Your task to perform on an android device: Show the shopping cart on amazon. Add razer blade to the cart on amazon, then select checkout. Image 0: 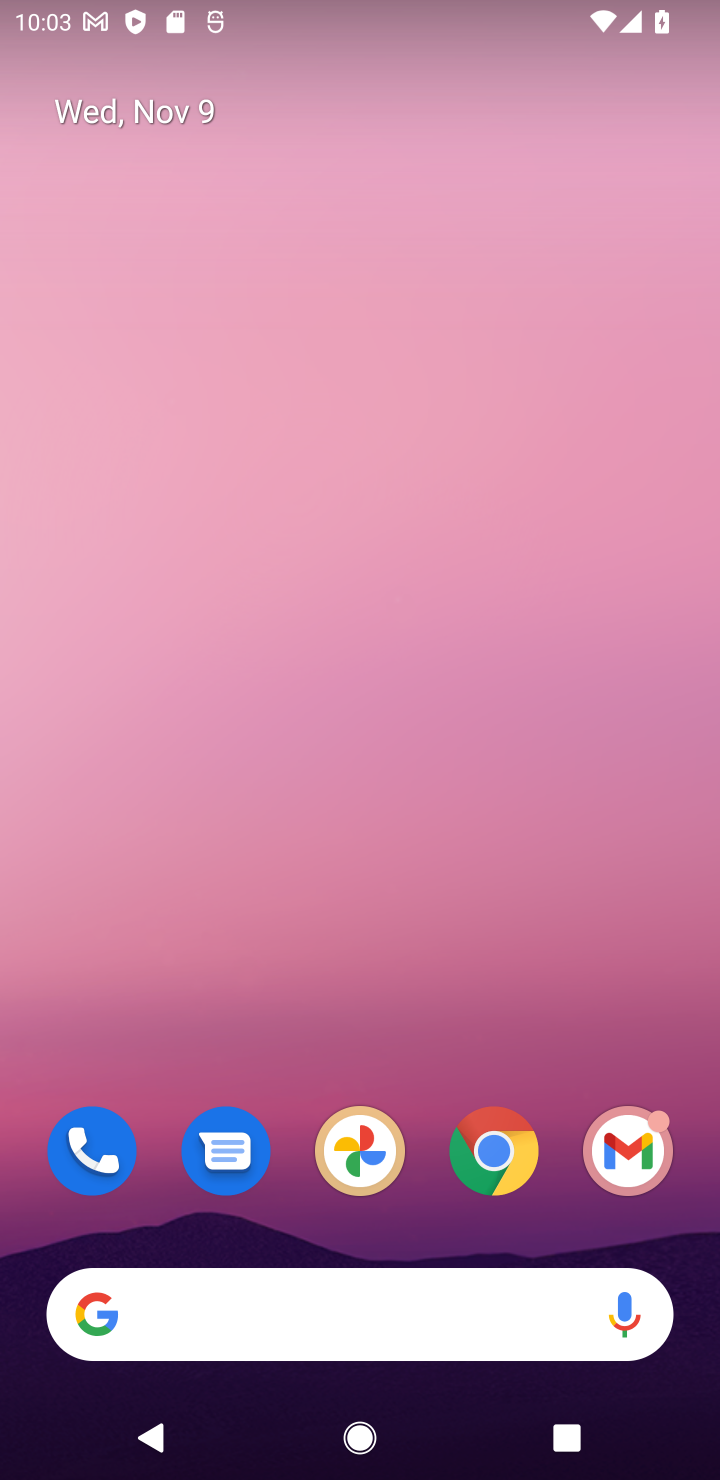
Step 0: click (490, 1151)
Your task to perform on an android device: Show the shopping cart on amazon. Add razer blade to the cart on amazon, then select checkout. Image 1: 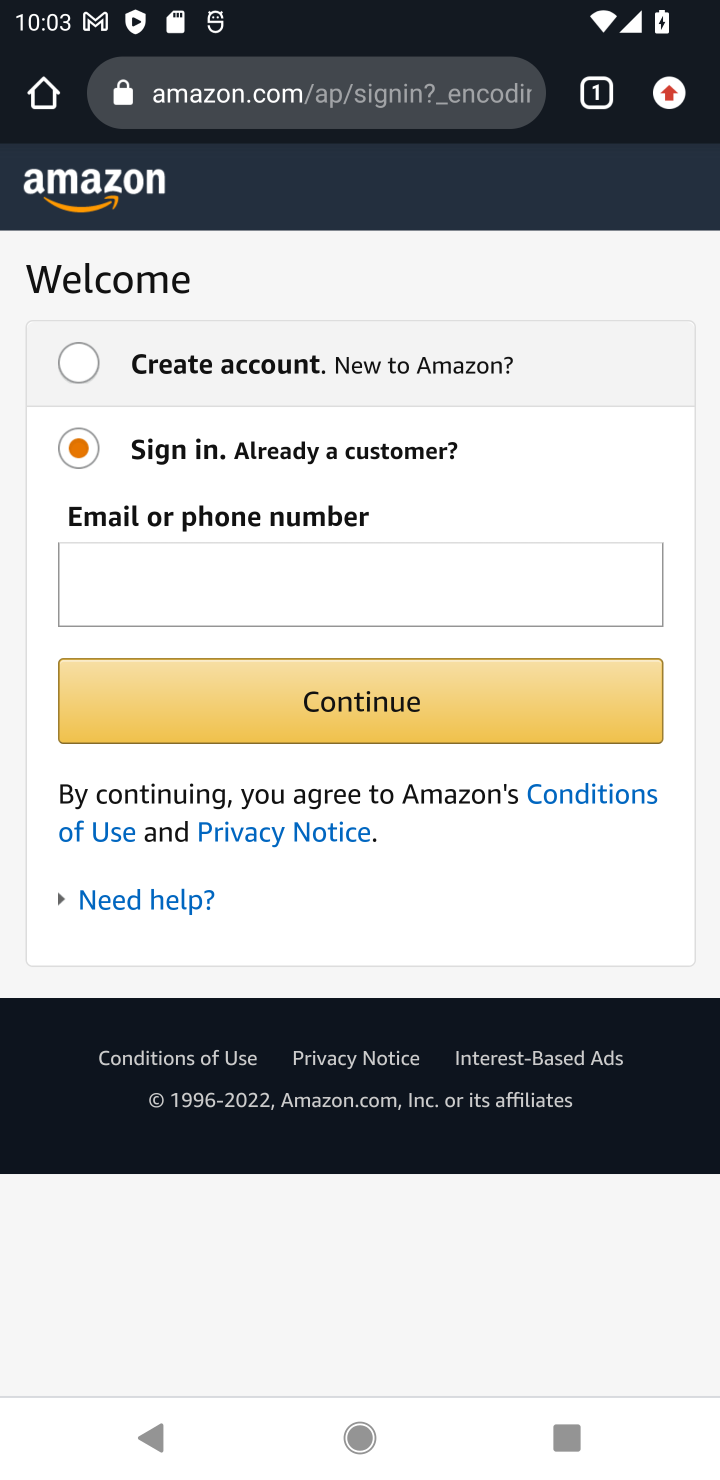
Step 1: press back button
Your task to perform on an android device: Show the shopping cart on amazon. Add razer blade to the cart on amazon, then select checkout. Image 2: 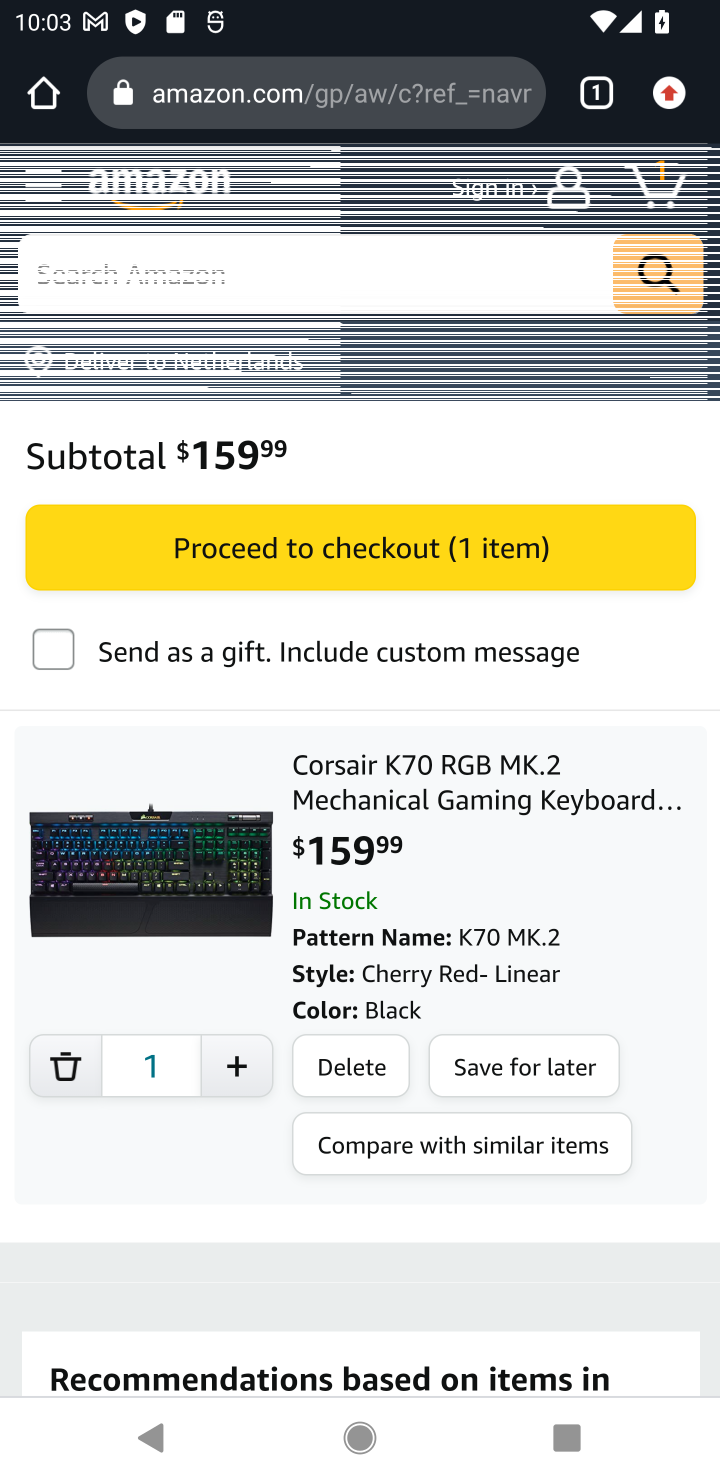
Step 2: click (650, 181)
Your task to perform on an android device: Show the shopping cart on amazon. Add razer blade to the cart on amazon, then select checkout. Image 3: 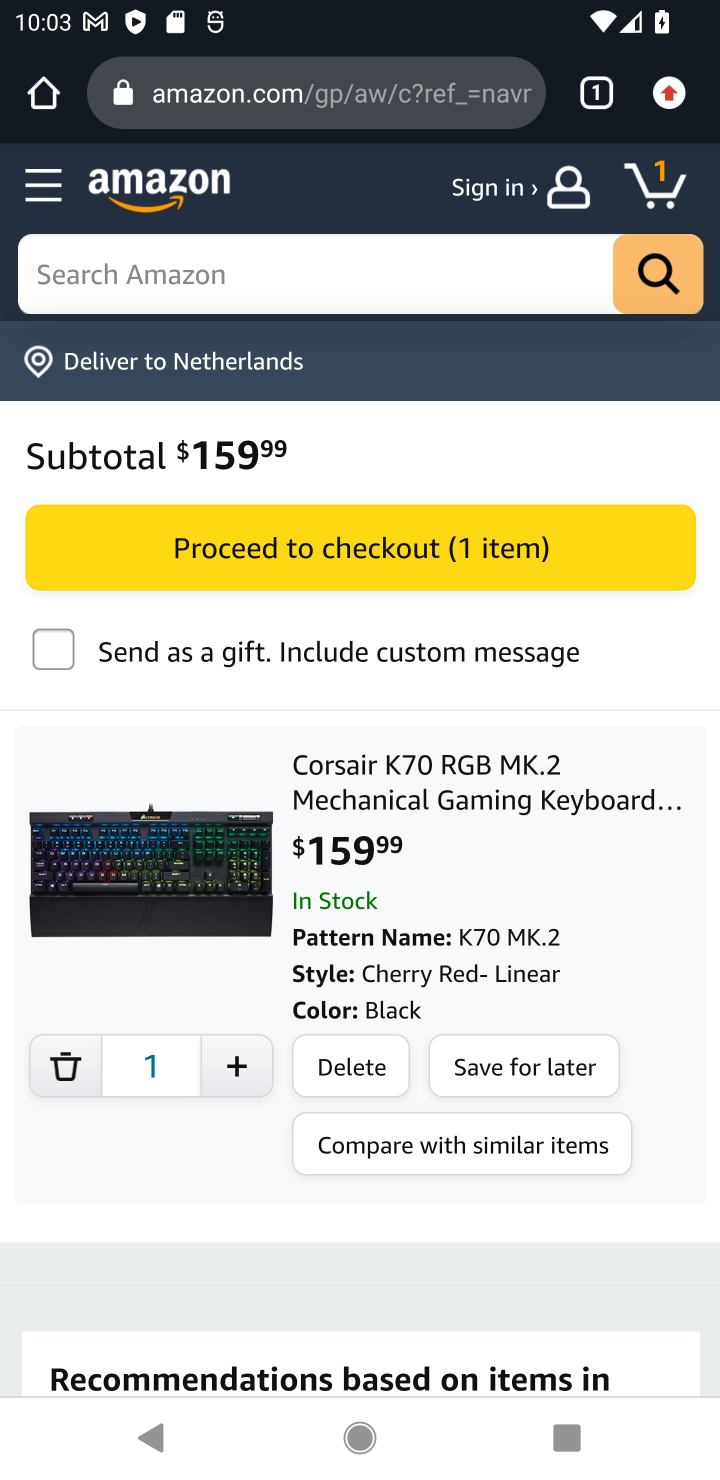
Step 3: click (402, 274)
Your task to perform on an android device: Show the shopping cart on amazon. Add razer blade to the cart on amazon, then select checkout. Image 4: 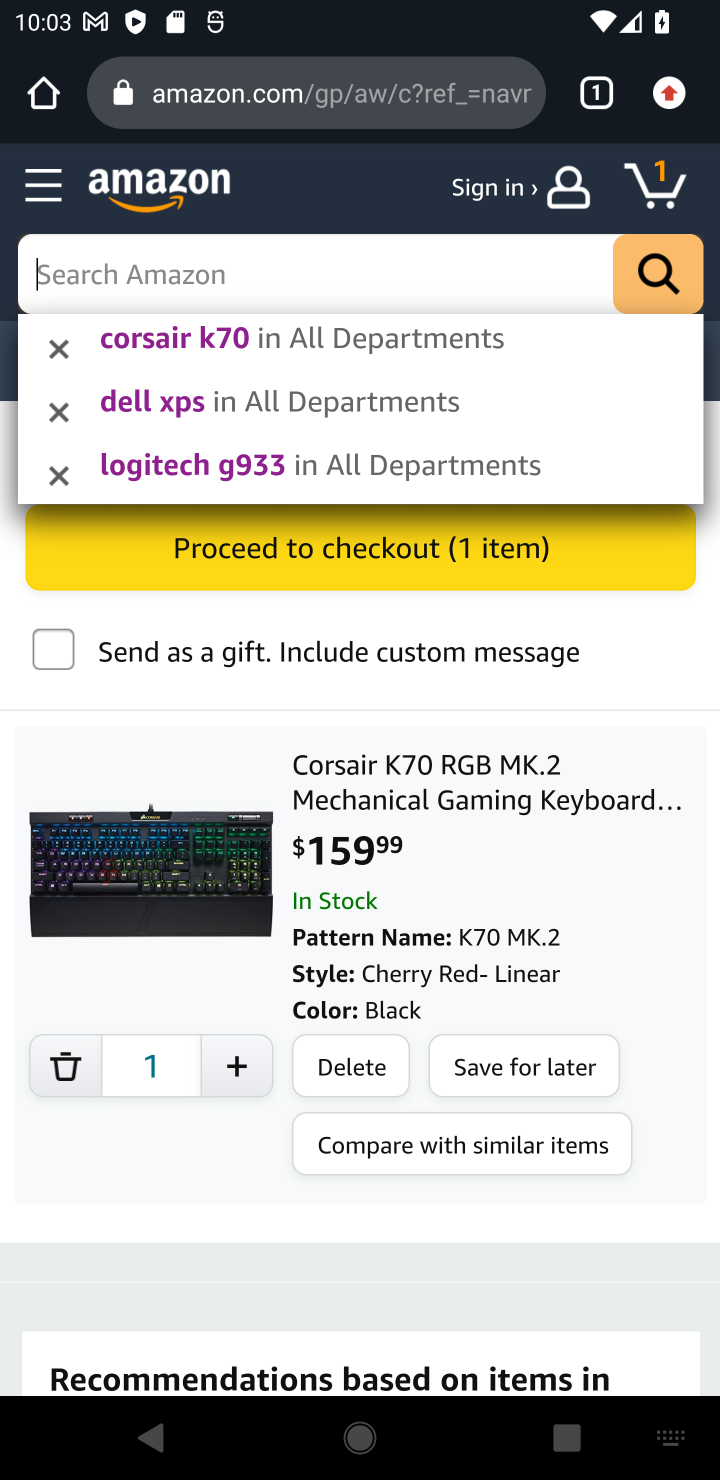
Step 4: type "razer blade"
Your task to perform on an android device: Show the shopping cart on amazon. Add razer blade to the cart on amazon, then select checkout. Image 5: 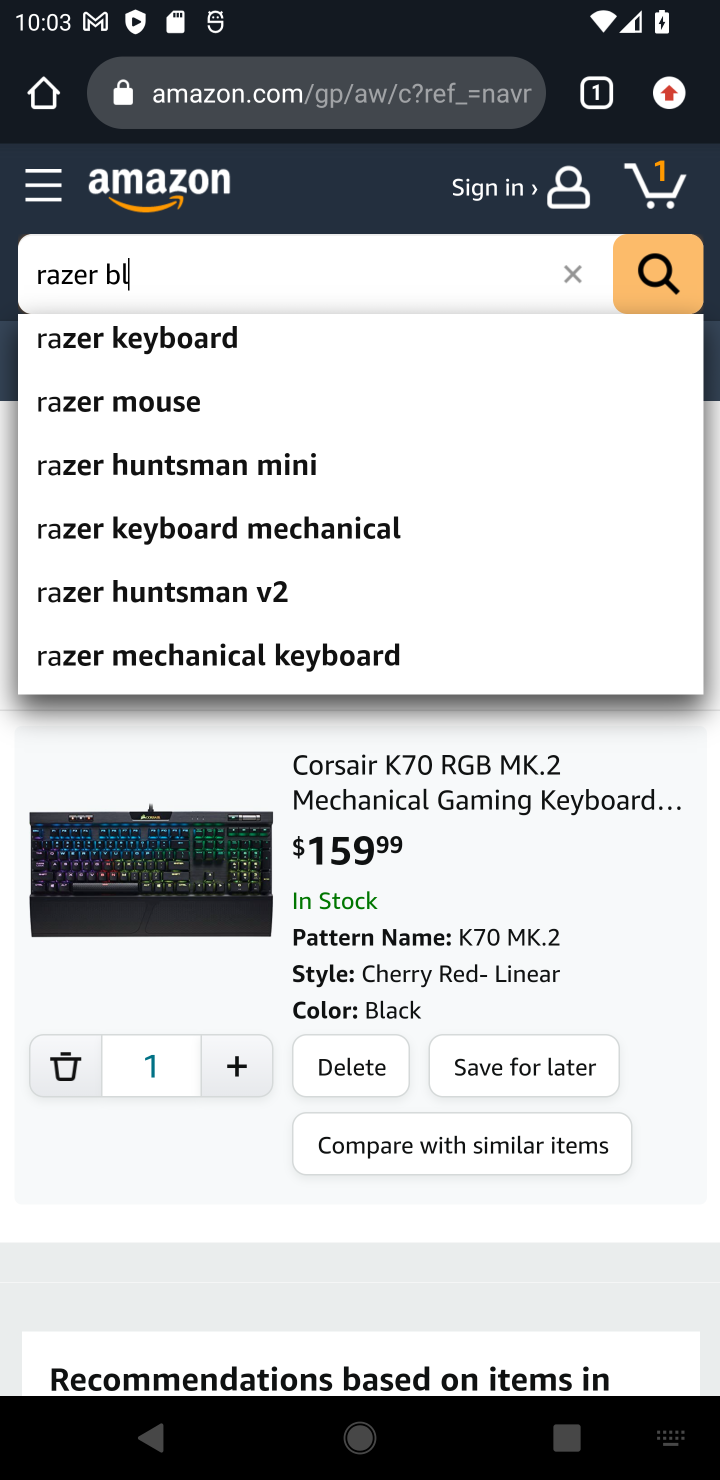
Step 5: press enter
Your task to perform on an android device: Show the shopping cart on amazon. Add razer blade to the cart on amazon, then select checkout. Image 6: 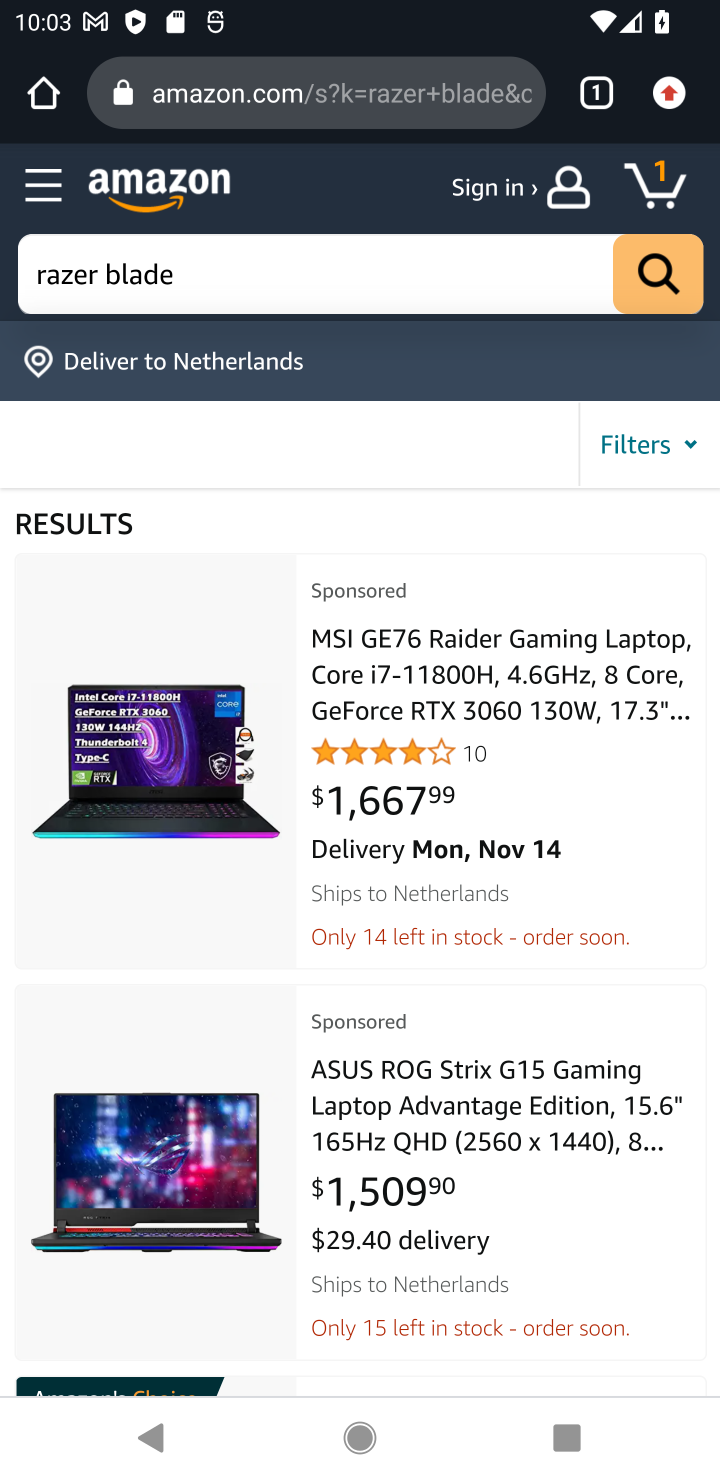
Step 6: drag from (561, 1230) to (535, 676)
Your task to perform on an android device: Show the shopping cart on amazon. Add razer blade to the cart on amazon, then select checkout. Image 7: 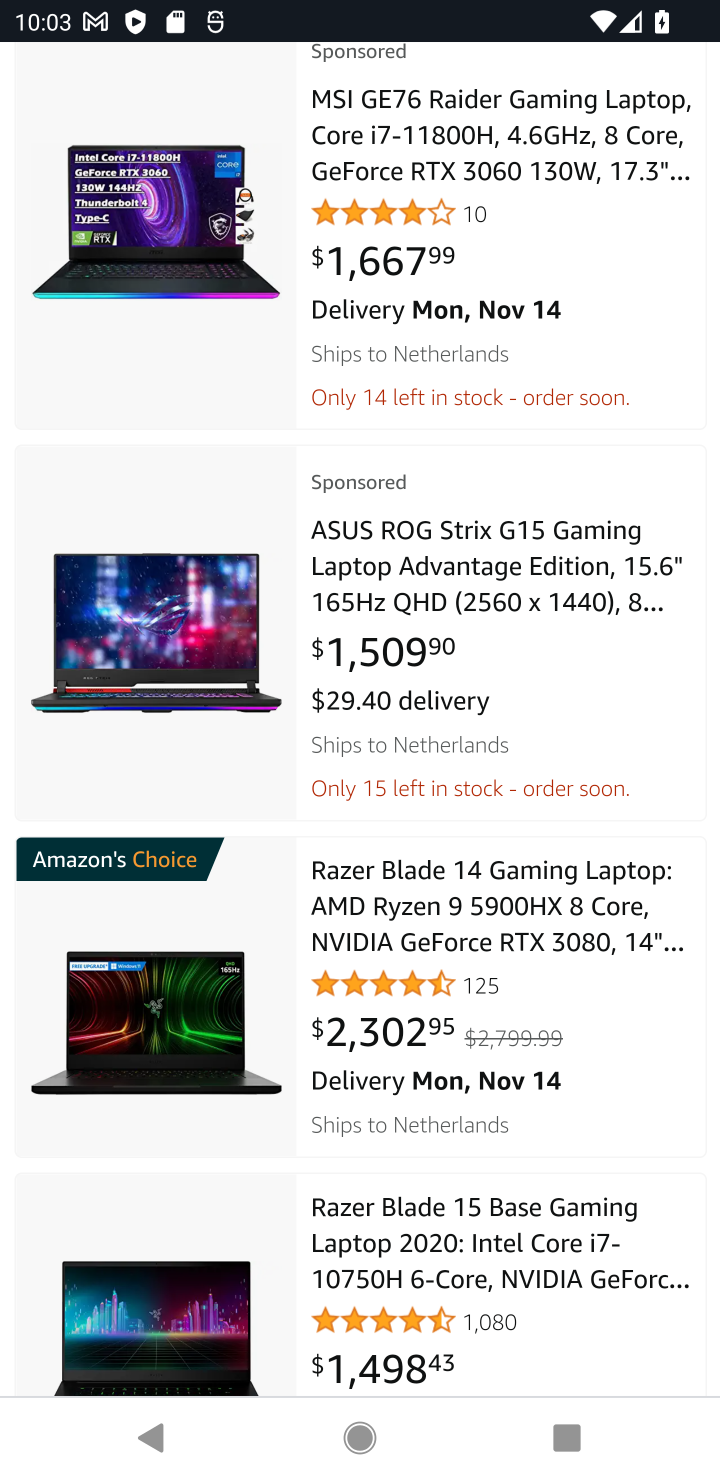
Step 7: click (158, 1044)
Your task to perform on an android device: Show the shopping cart on amazon. Add razer blade to the cart on amazon, then select checkout. Image 8: 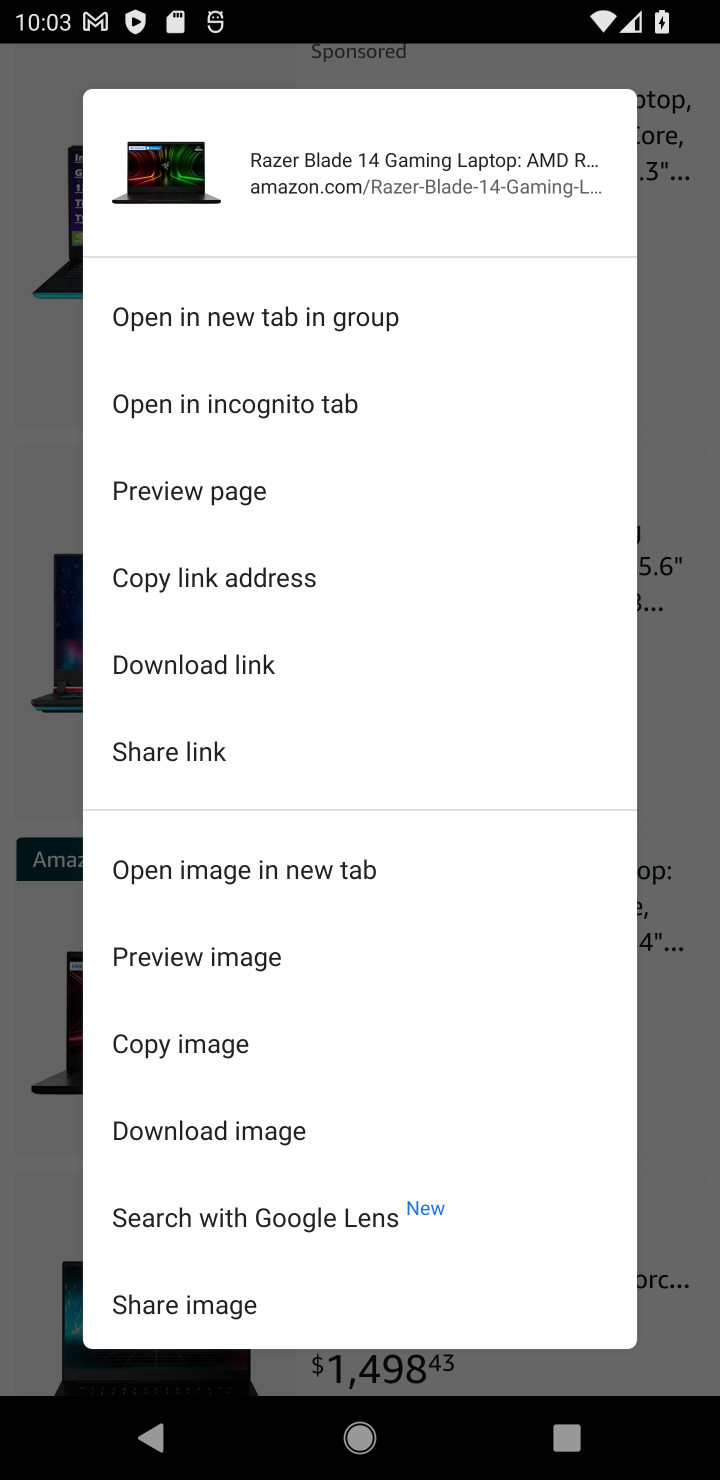
Step 8: click (51, 999)
Your task to perform on an android device: Show the shopping cart on amazon. Add razer blade to the cart on amazon, then select checkout. Image 9: 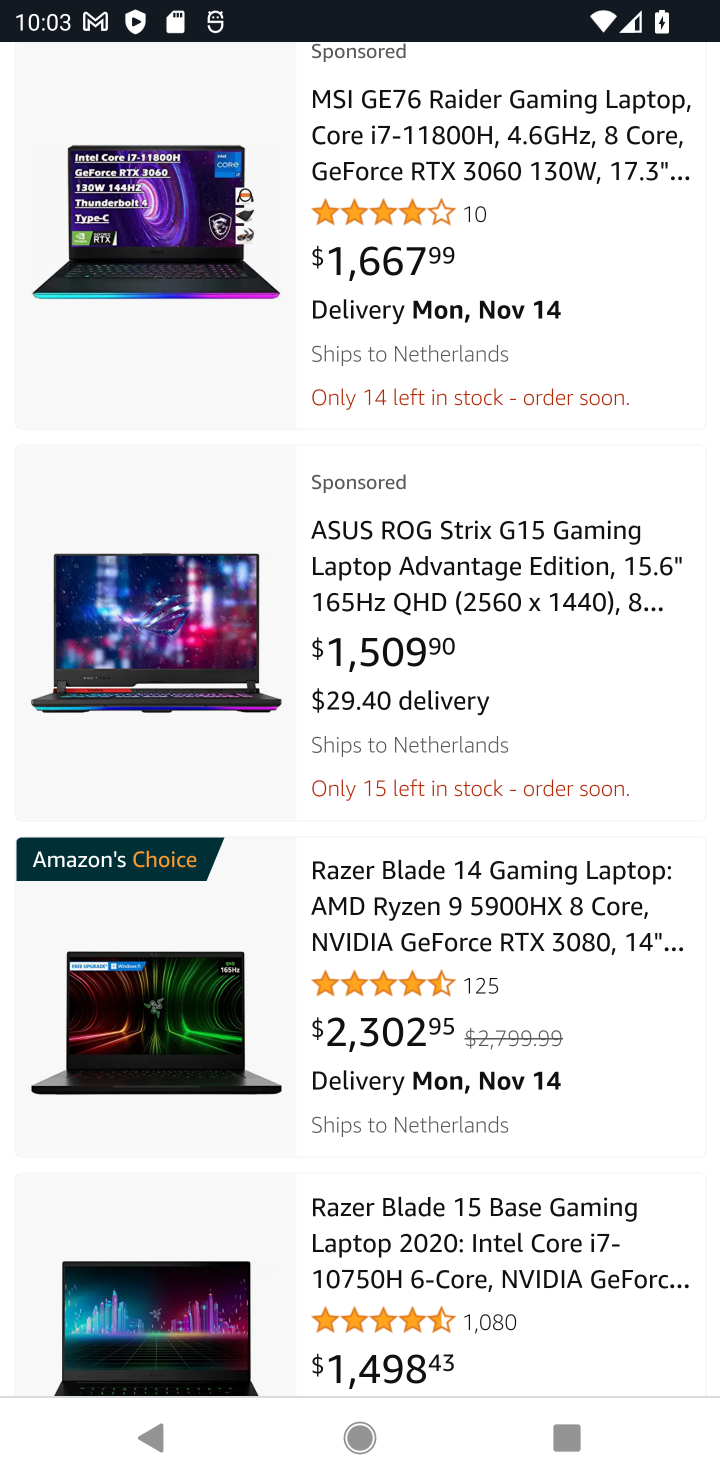
Step 9: click (155, 997)
Your task to perform on an android device: Show the shopping cart on amazon. Add razer blade to the cart on amazon, then select checkout. Image 10: 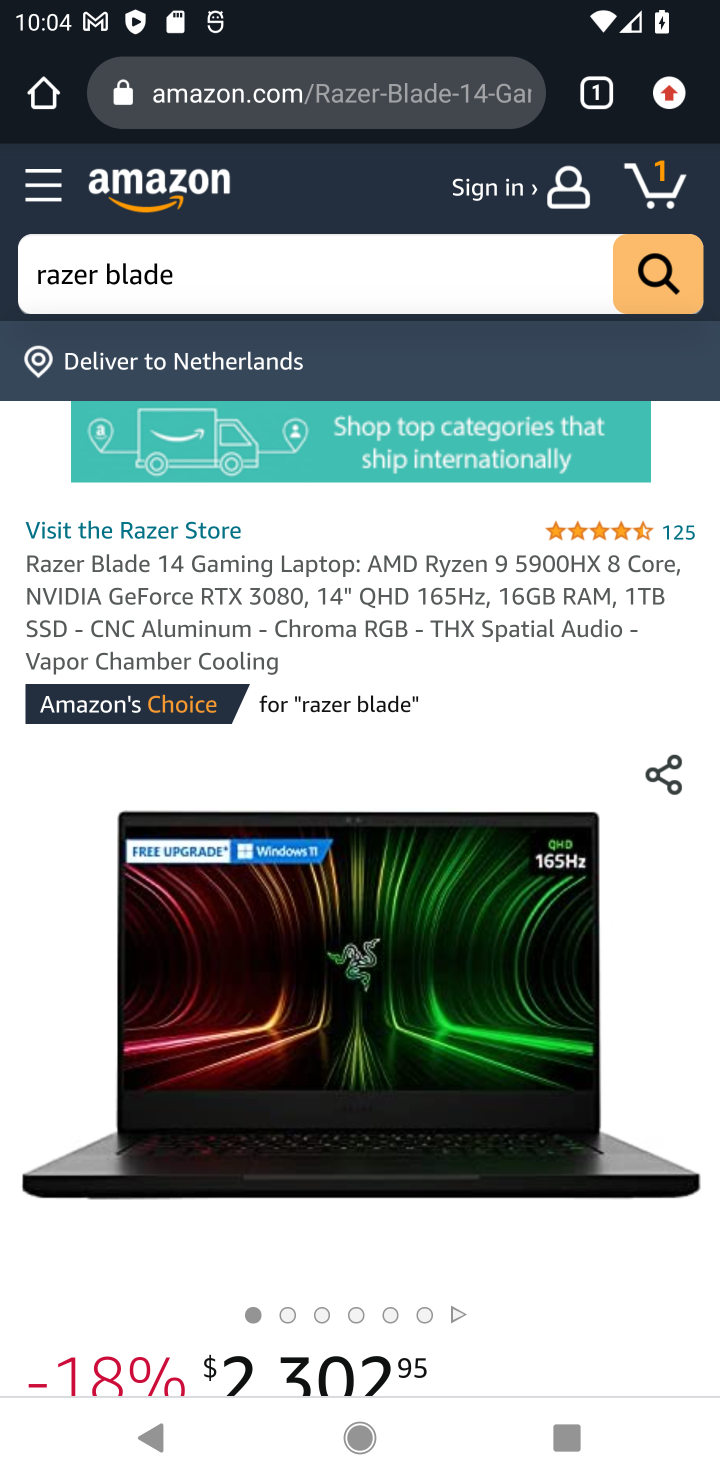
Step 10: drag from (293, 817) to (296, 654)
Your task to perform on an android device: Show the shopping cart on amazon. Add razer blade to the cart on amazon, then select checkout. Image 11: 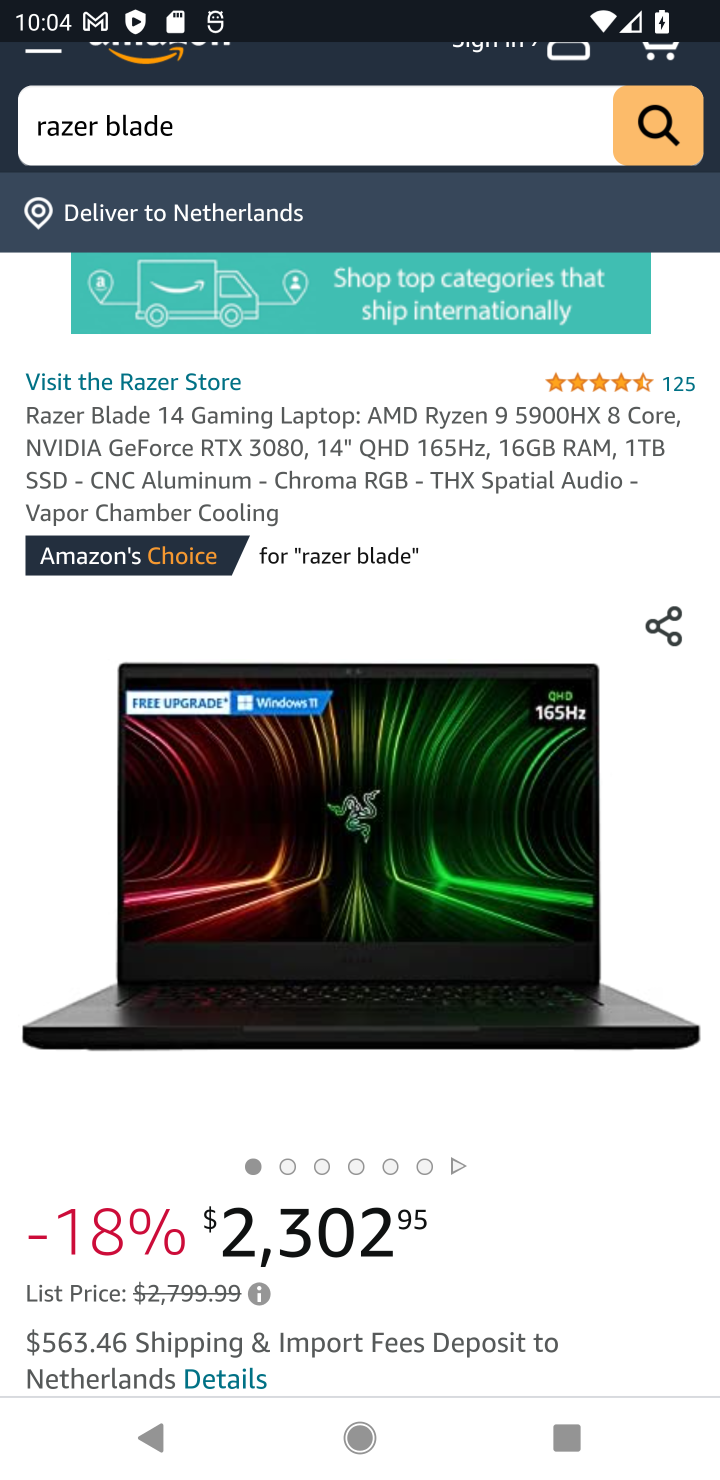
Step 11: drag from (492, 889) to (507, 708)
Your task to perform on an android device: Show the shopping cart on amazon. Add razer blade to the cart on amazon, then select checkout. Image 12: 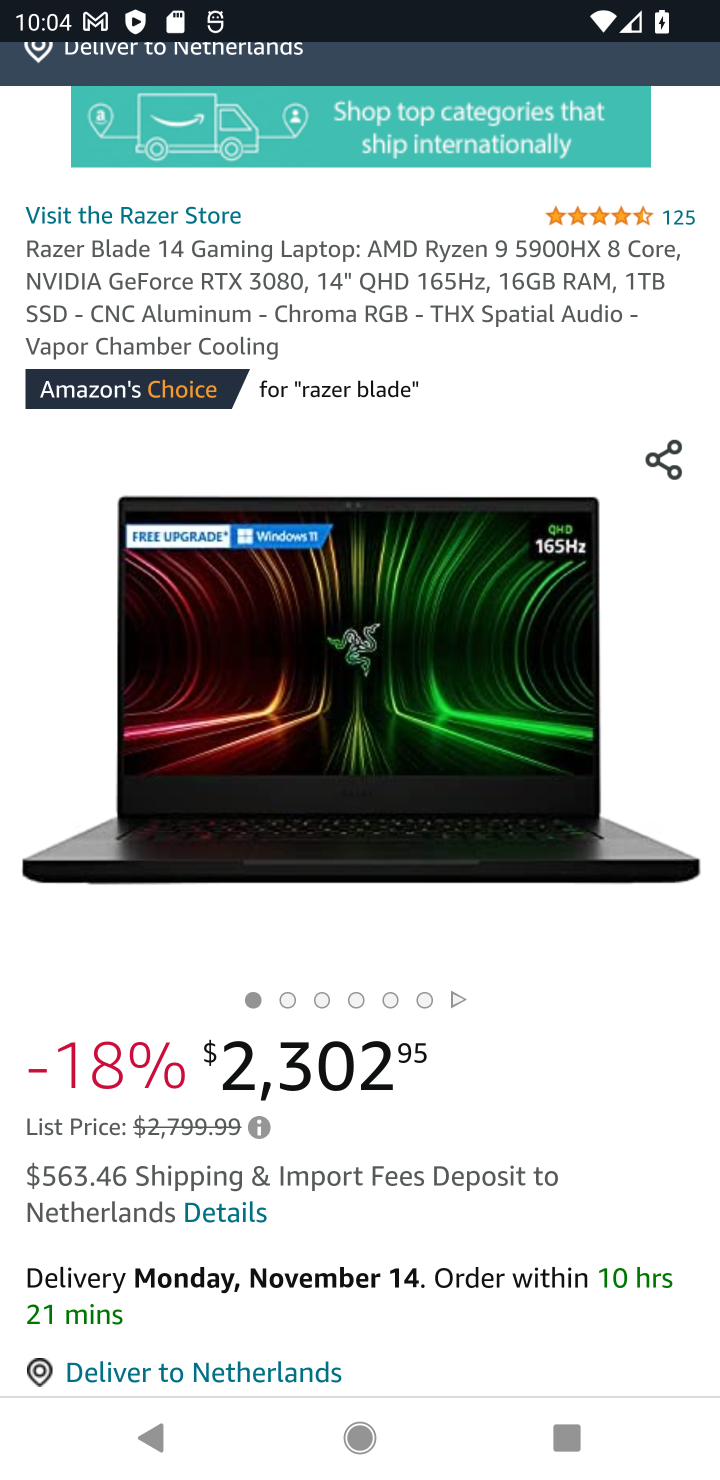
Step 12: drag from (594, 1263) to (619, 651)
Your task to perform on an android device: Show the shopping cart on amazon. Add razer blade to the cart on amazon, then select checkout. Image 13: 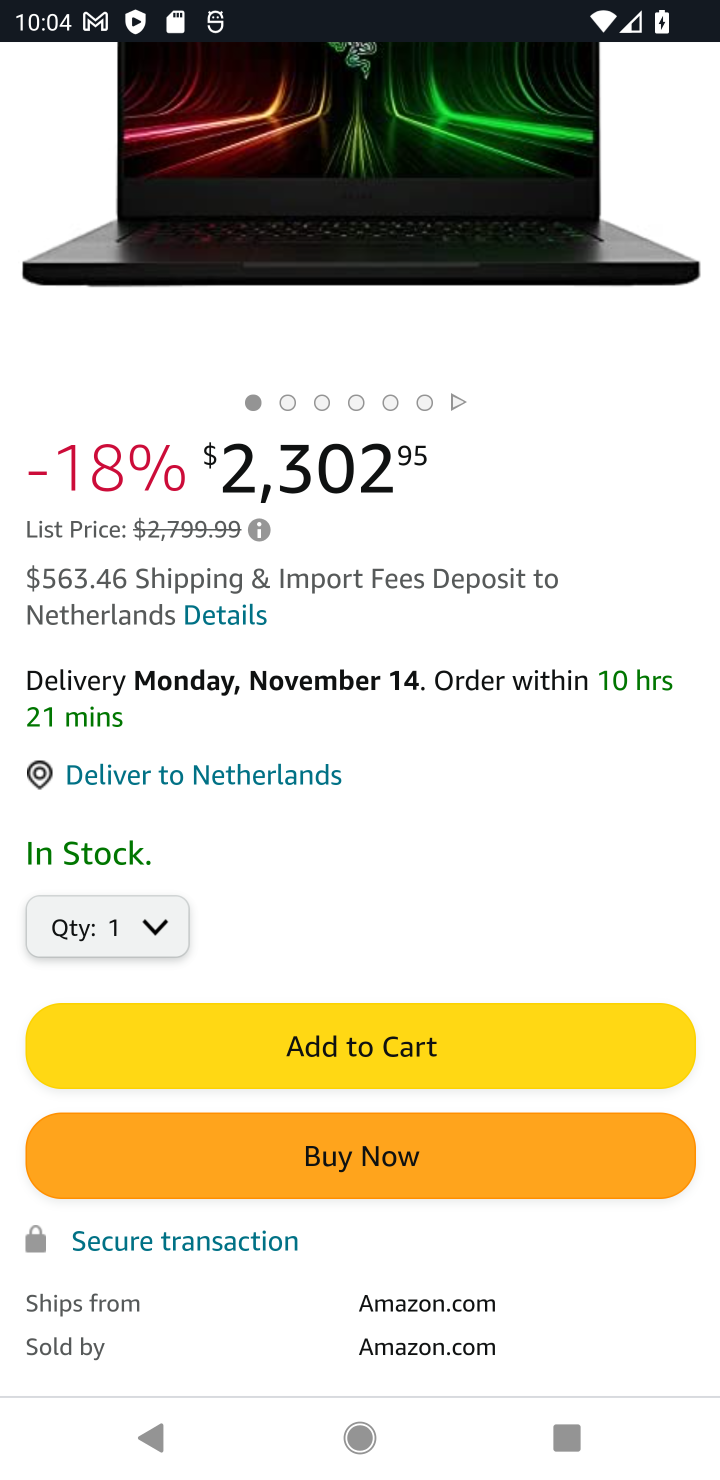
Step 13: click (414, 1044)
Your task to perform on an android device: Show the shopping cart on amazon. Add razer blade to the cart on amazon, then select checkout. Image 14: 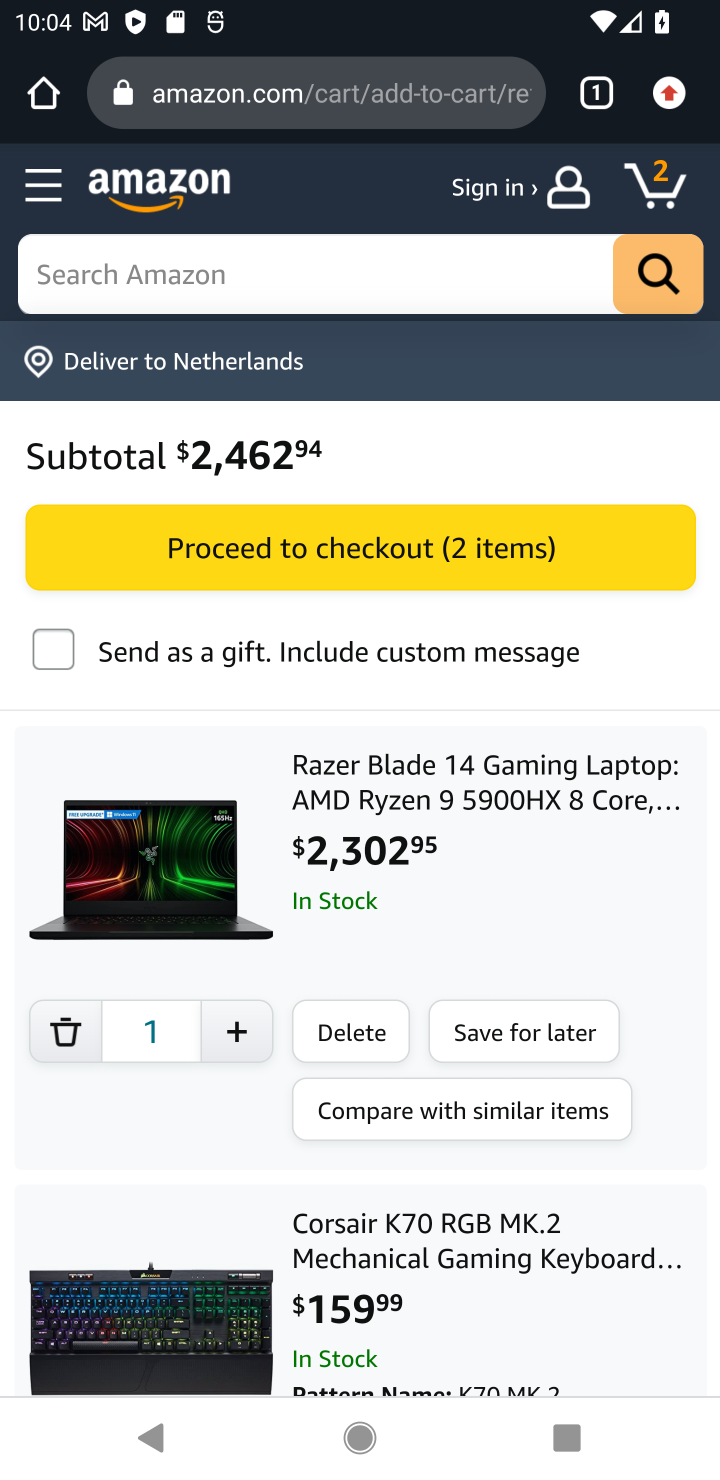
Step 14: click (300, 529)
Your task to perform on an android device: Show the shopping cart on amazon. Add razer blade to the cart on amazon, then select checkout. Image 15: 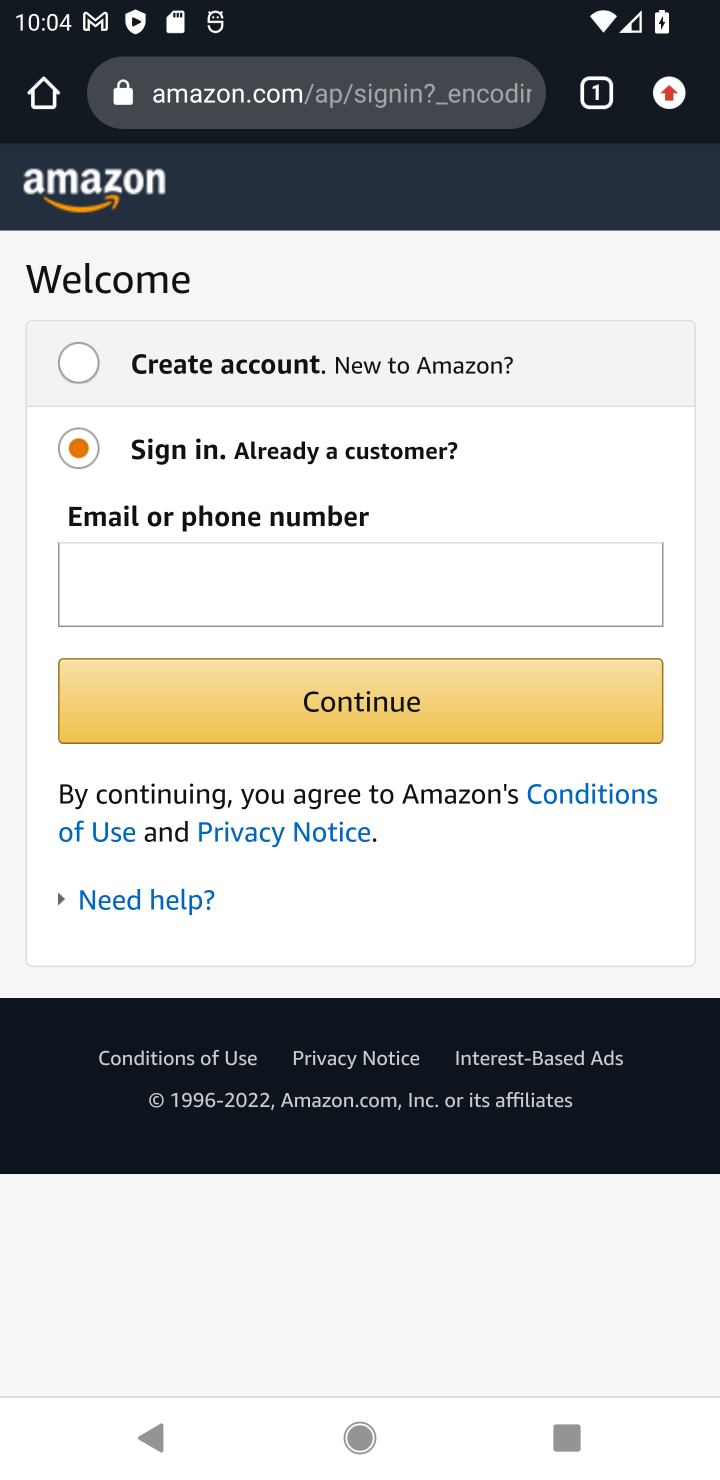
Step 15: task complete